Your task to perform on an android device: open app "Facebook Messenger" (install if not already installed) and go to login screen Image 0: 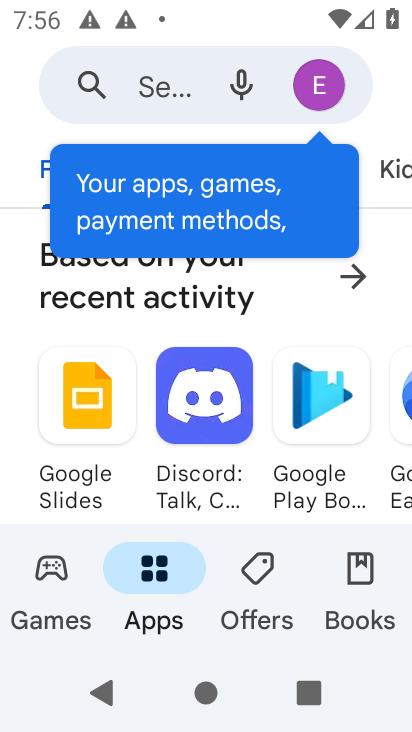
Step 0: press back button
Your task to perform on an android device: open app "Facebook Messenger" (install if not already installed) and go to login screen Image 1: 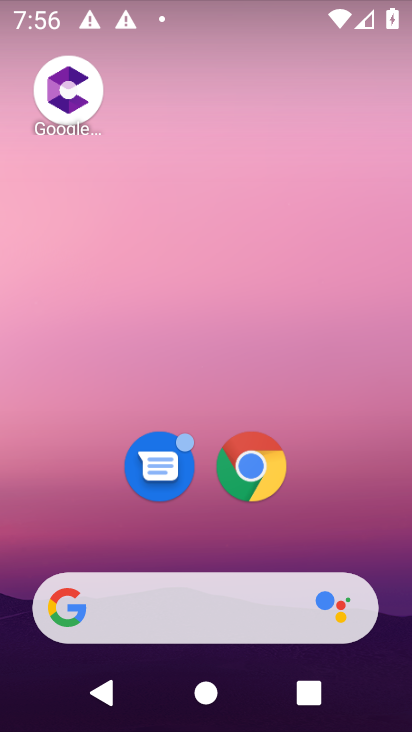
Step 1: drag from (201, 541) to (291, 11)
Your task to perform on an android device: open app "Facebook Messenger" (install if not already installed) and go to login screen Image 2: 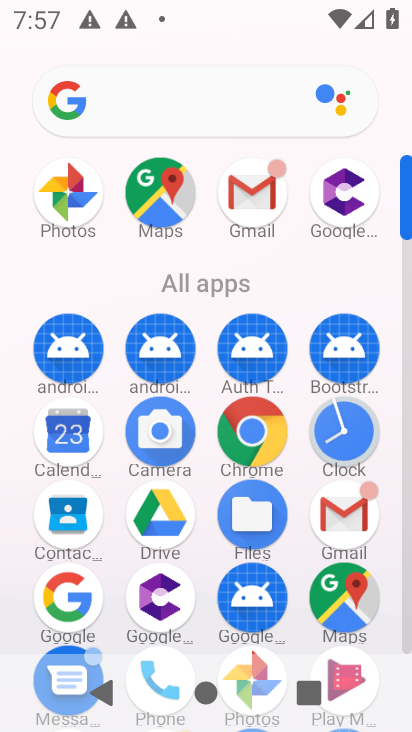
Step 2: drag from (173, 590) to (242, 222)
Your task to perform on an android device: open app "Facebook Messenger" (install if not already installed) and go to login screen Image 3: 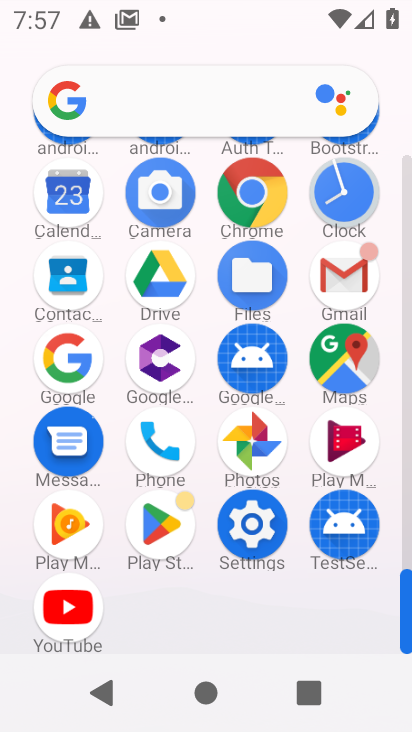
Step 3: click (160, 522)
Your task to perform on an android device: open app "Facebook Messenger" (install if not already installed) and go to login screen Image 4: 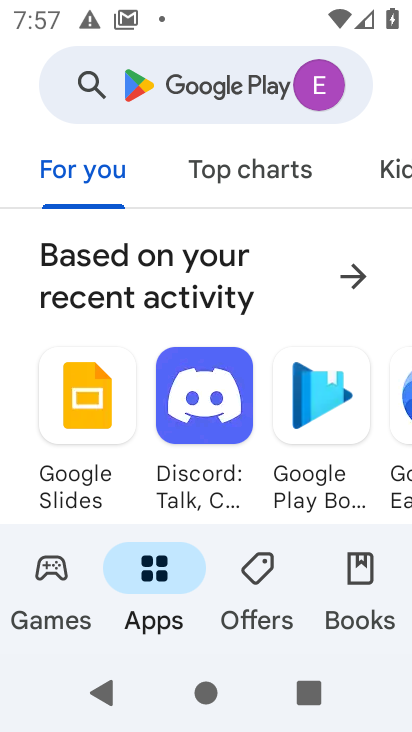
Step 4: click (207, 80)
Your task to perform on an android device: open app "Facebook Messenger" (install if not already installed) and go to login screen Image 5: 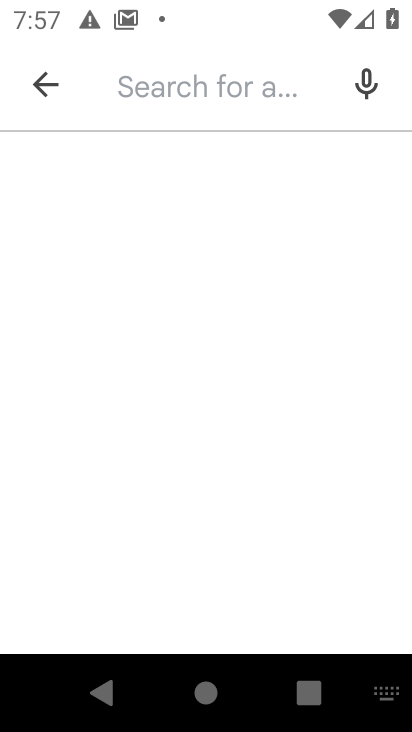
Step 5: click (137, 61)
Your task to perform on an android device: open app "Facebook Messenger" (install if not already installed) and go to login screen Image 6: 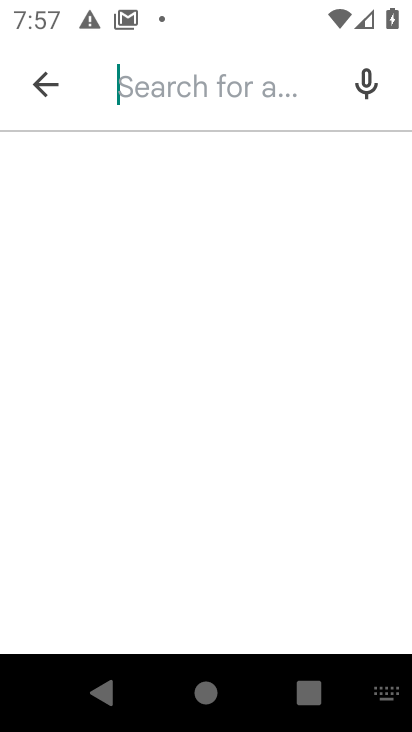
Step 6: type "Facebook Messenger"
Your task to perform on an android device: open app "Facebook Messenger" (install if not already installed) and go to login screen Image 7: 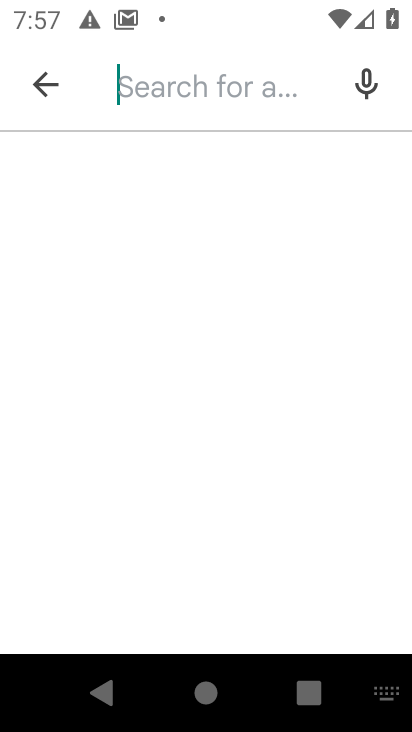
Step 7: click (199, 395)
Your task to perform on an android device: open app "Facebook Messenger" (install if not already installed) and go to login screen Image 8: 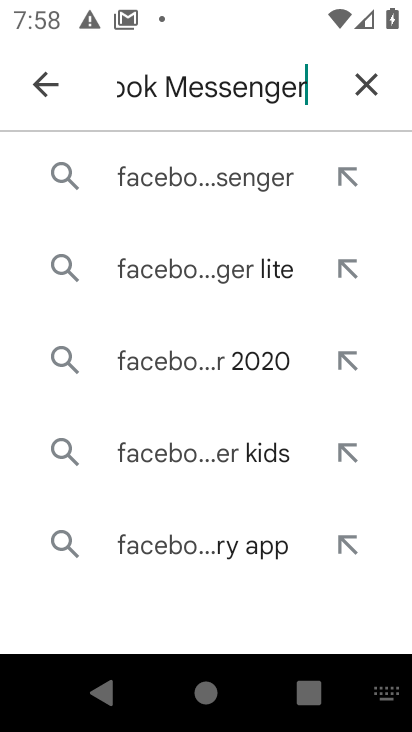
Step 8: click (222, 185)
Your task to perform on an android device: open app "Facebook Messenger" (install if not already installed) and go to login screen Image 9: 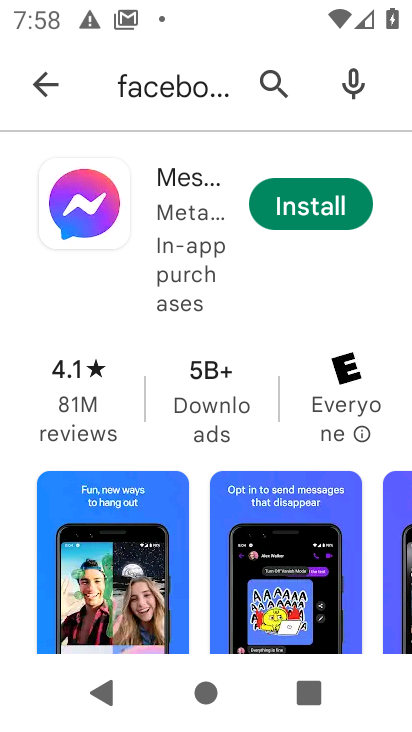
Step 9: click (297, 200)
Your task to perform on an android device: open app "Facebook Messenger" (install if not already installed) and go to login screen Image 10: 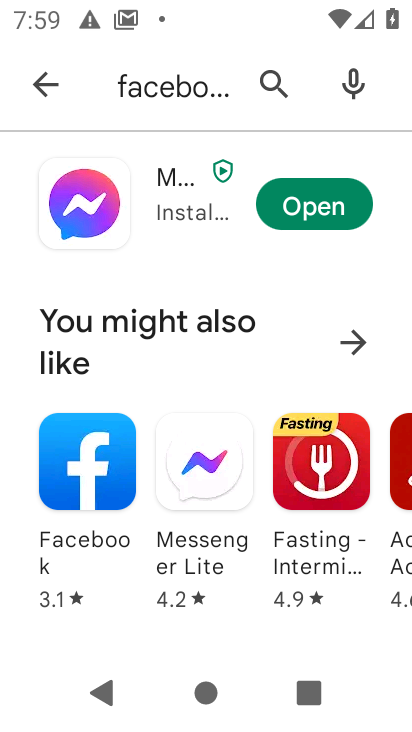
Step 10: click (290, 207)
Your task to perform on an android device: open app "Facebook Messenger" (install if not already installed) and go to login screen Image 11: 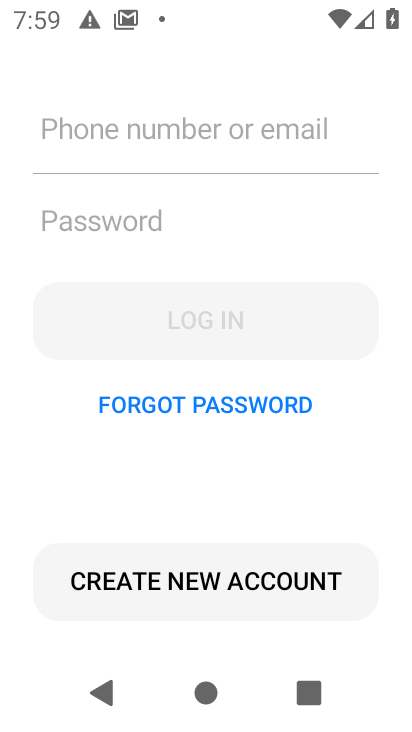
Step 11: task complete